Your task to perform on an android device: Show me recent news Image 0: 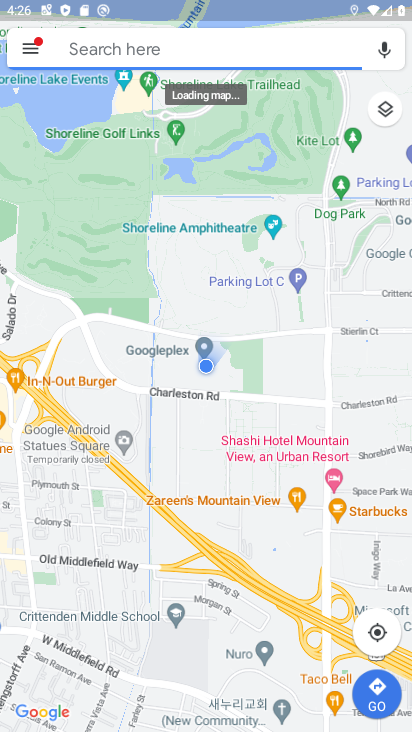
Step 0: press back button
Your task to perform on an android device: Show me recent news Image 1: 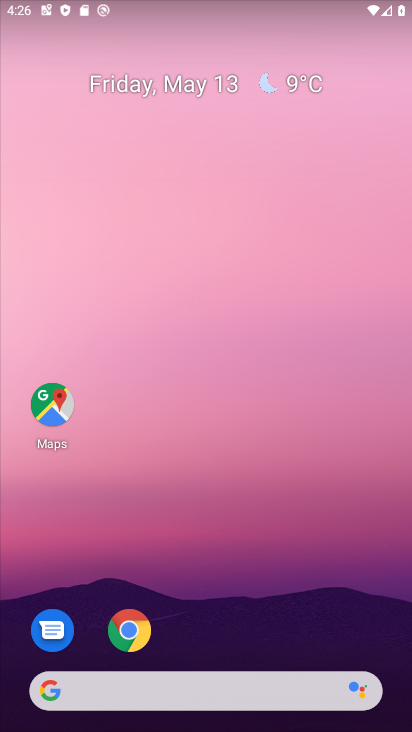
Step 1: drag from (251, 561) to (261, 70)
Your task to perform on an android device: Show me recent news Image 2: 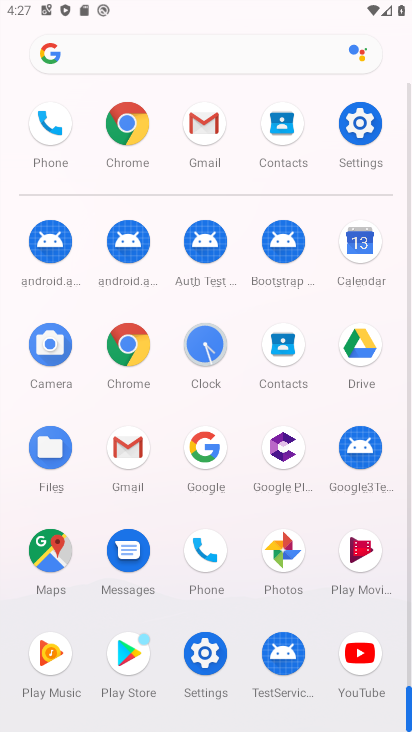
Step 2: click (128, 339)
Your task to perform on an android device: Show me recent news Image 3: 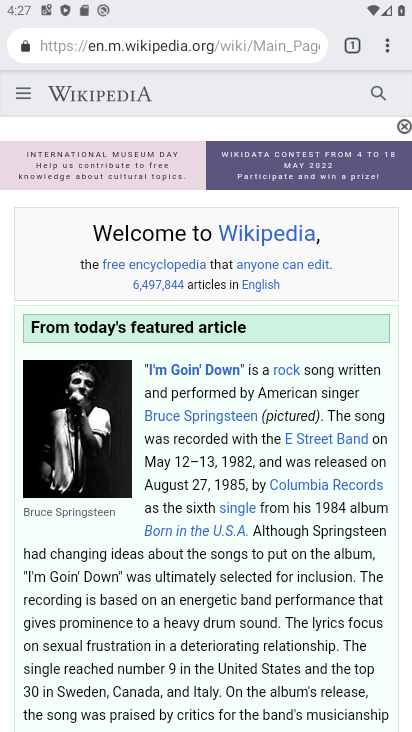
Step 3: click (183, 41)
Your task to perform on an android device: Show me recent news Image 4: 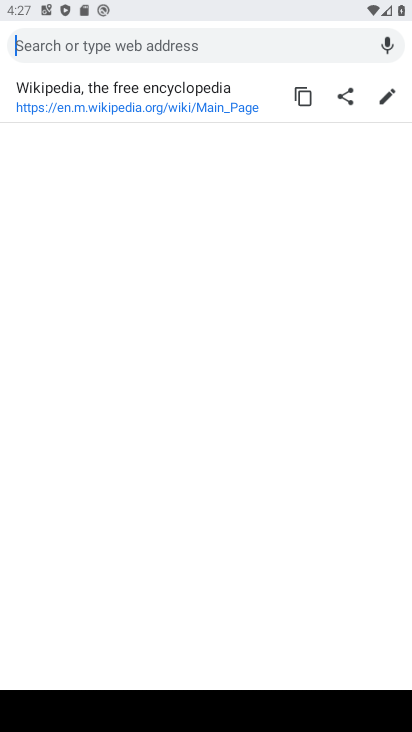
Step 4: type "Show me recent news"
Your task to perform on an android device: Show me recent news Image 5: 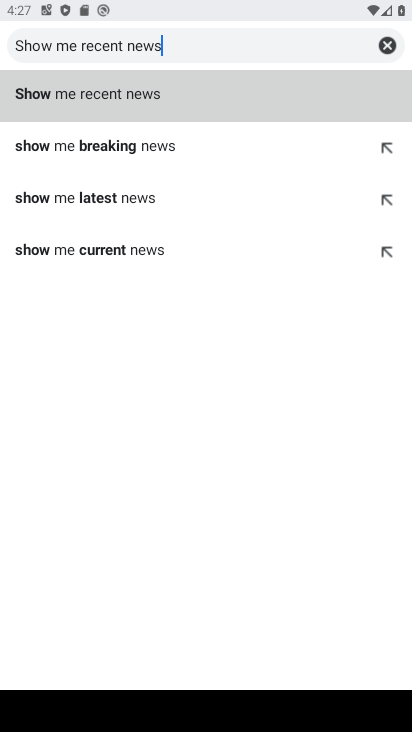
Step 5: type ""
Your task to perform on an android device: Show me recent news Image 6: 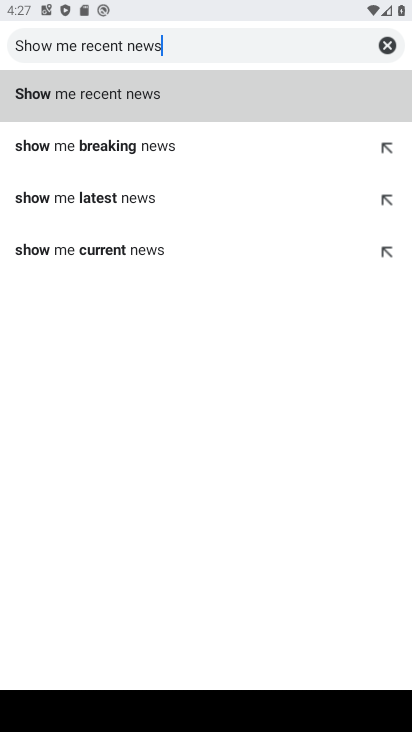
Step 6: click (148, 139)
Your task to perform on an android device: Show me recent news Image 7: 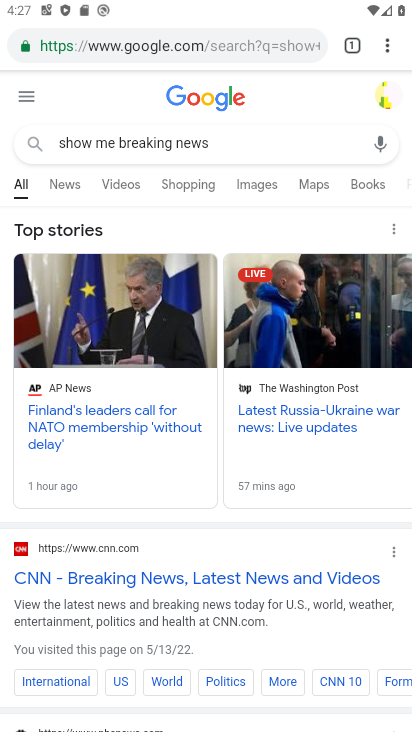
Step 7: task complete